Your task to perform on an android device: turn on location history Image 0: 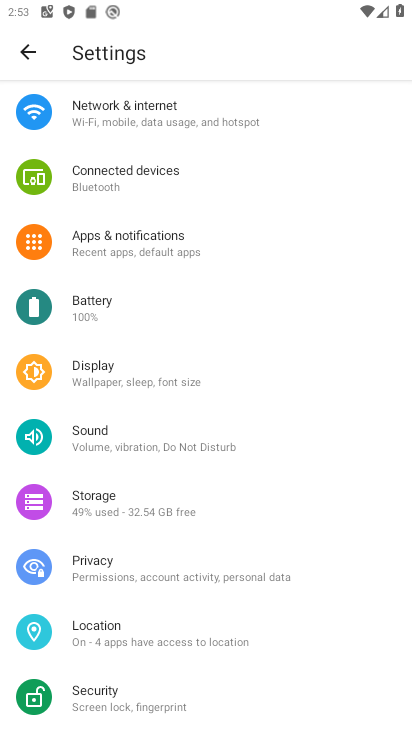
Step 0: click (123, 635)
Your task to perform on an android device: turn on location history Image 1: 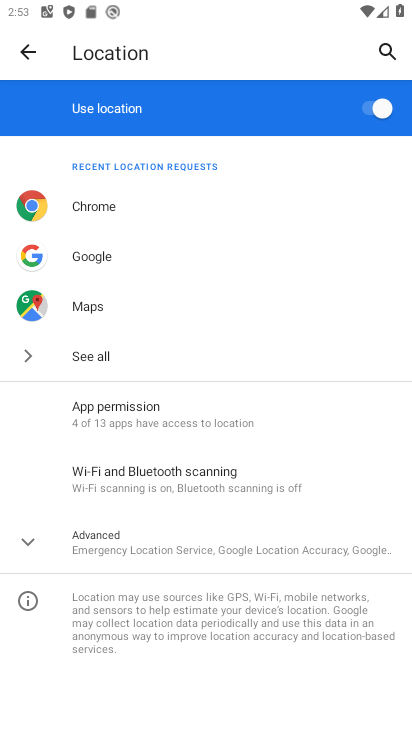
Step 1: click (105, 545)
Your task to perform on an android device: turn on location history Image 2: 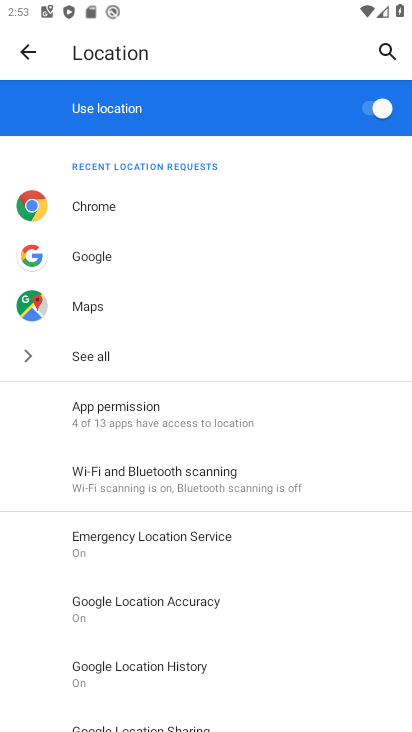
Step 2: click (148, 664)
Your task to perform on an android device: turn on location history Image 3: 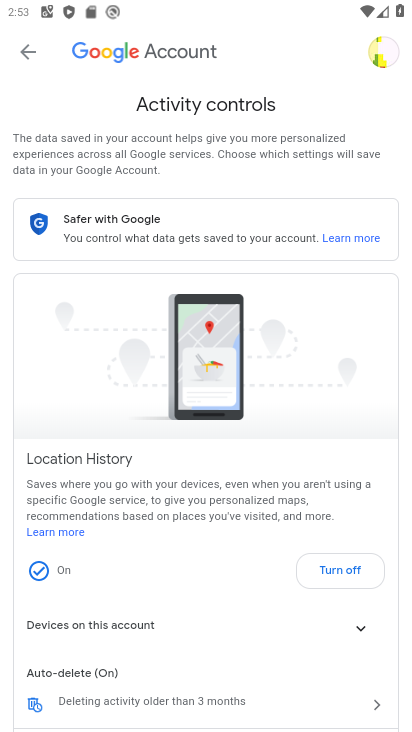
Step 3: task complete